Your task to perform on an android device: turn off smart reply in the gmail app Image 0: 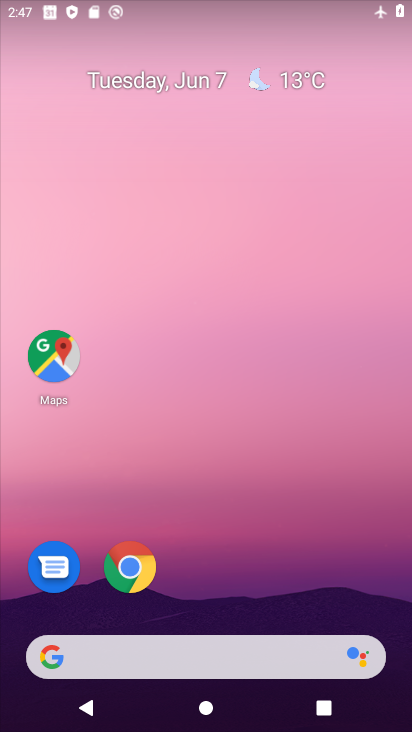
Step 0: drag from (188, 580) to (311, 6)
Your task to perform on an android device: turn off smart reply in the gmail app Image 1: 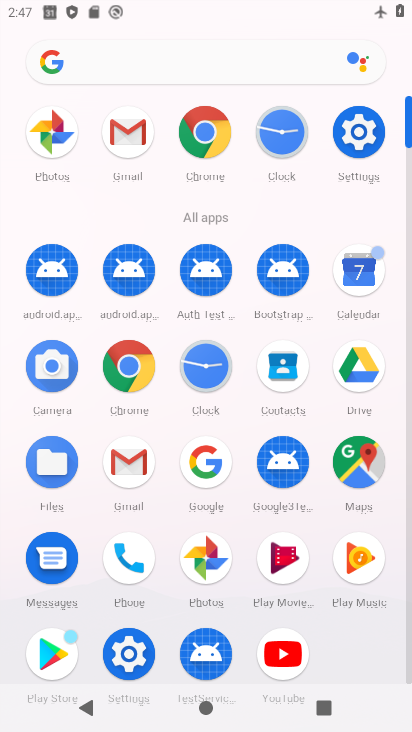
Step 1: click (120, 127)
Your task to perform on an android device: turn off smart reply in the gmail app Image 2: 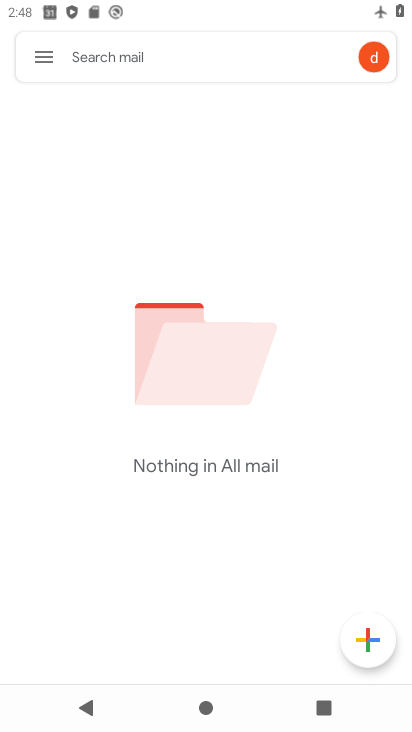
Step 2: click (42, 52)
Your task to perform on an android device: turn off smart reply in the gmail app Image 3: 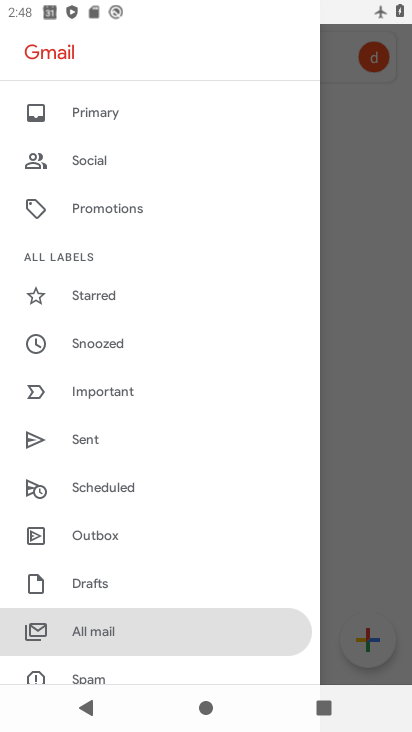
Step 3: drag from (155, 569) to (232, 94)
Your task to perform on an android device: turn off smart reply in the gmail app Image 4: 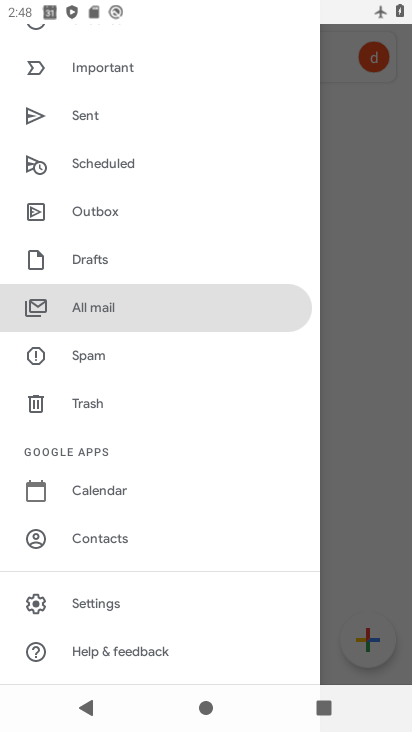
Step 4: click (114, 601)
Your task to perform on an android device: turn off smart reply in the gmail app Image 5: 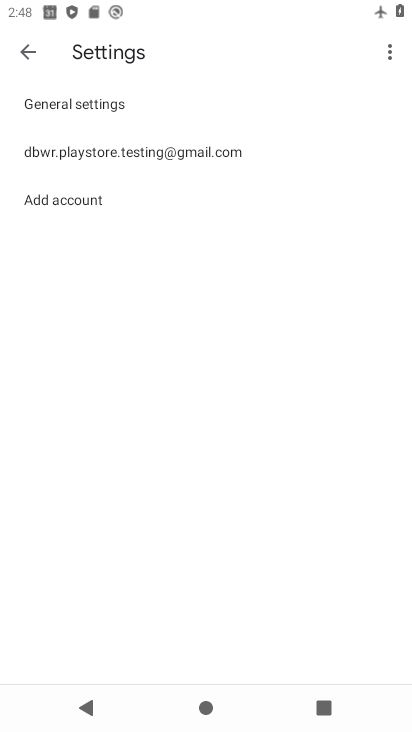
Step 5: click (110, 157)
Your task to perform on an android device: turn off smart reply in the gmail app Image 6: 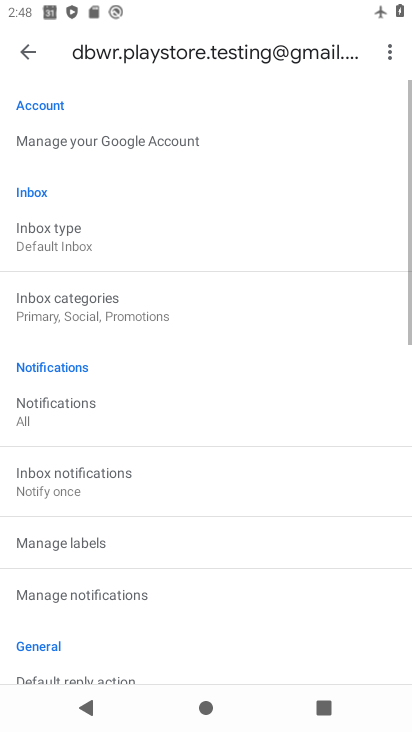
Step 6: drag from (96, 642) to (267, 11)
Your task to perform on an android device: turn off smart reply in the gmail app Image 7: 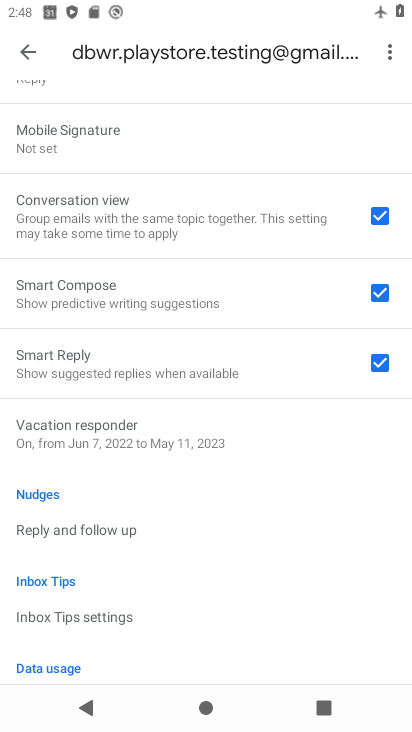
Step 7: drag from (181, 543) to (204, 379)
Your task to perform on an android device: turn off smart reply in the gmail app Image 8: 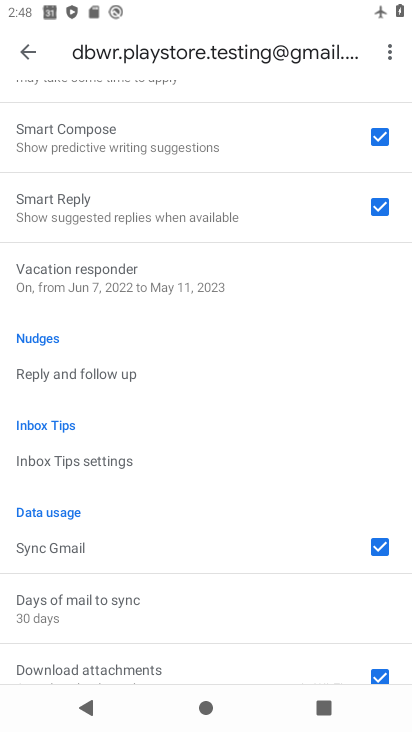
Step 8: click (383, 197)
Your task to perform on an android device: turn off smart reply in the gmail app Image 9: 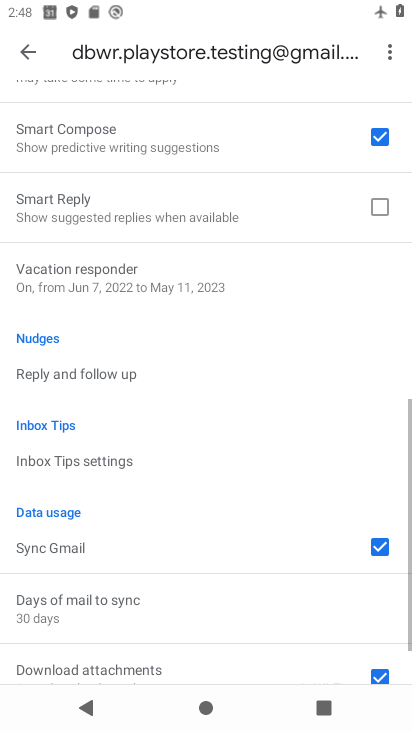
Step 9: task complete